Your task to perform on an android device: check google app version Image 0: 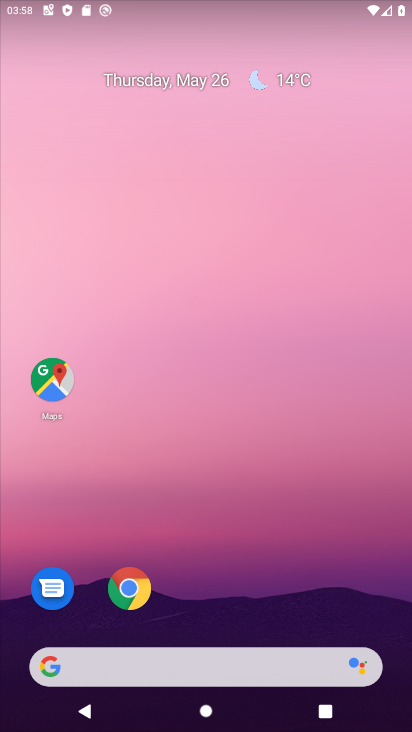
Step 0: drag from (250, 580) to (265, 82)
Your task to perform on an android device: check google app version Image 1: 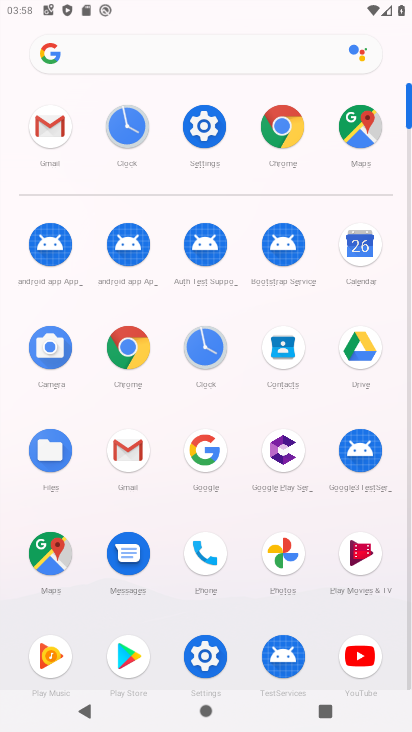
Step 1: click (209, 129)
Your task to perform on an android device: check google app version Image 2: 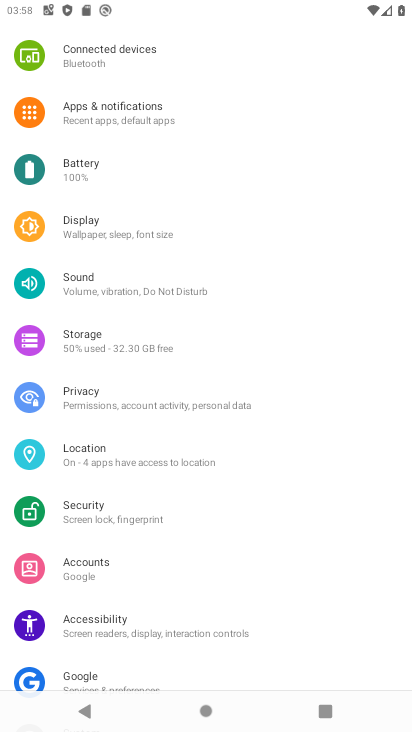
Step 2: press home button
Your task to perform on an android device: check google app version Image 3: 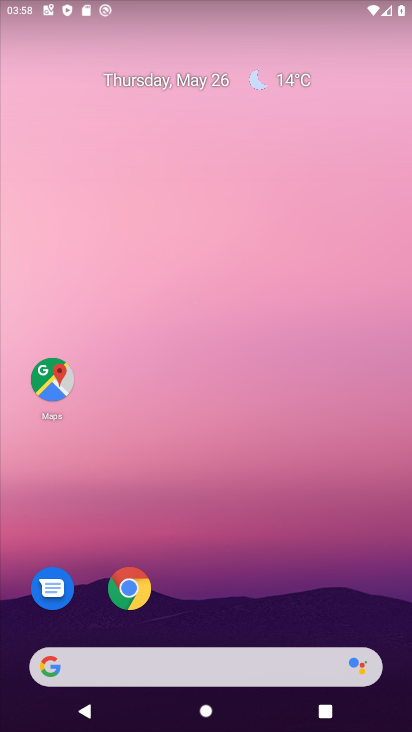
Step 3: drag from (230, 613) to (273, 167)
Your task to perform on an android device: check google app version Image 4: 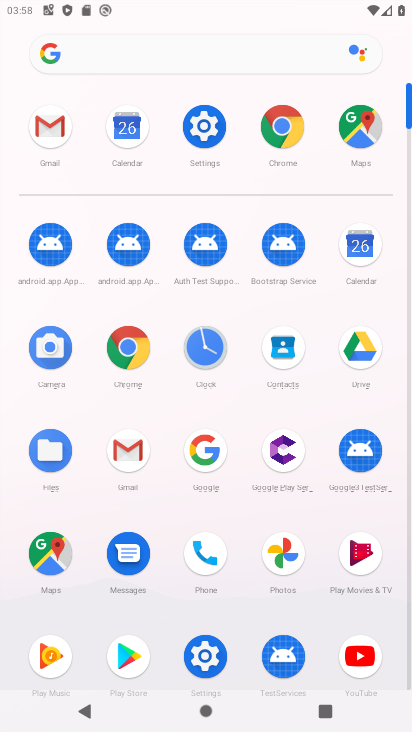
Step 4: click (284, 133)
Your task to perform on an android device: check google app version Image 5: 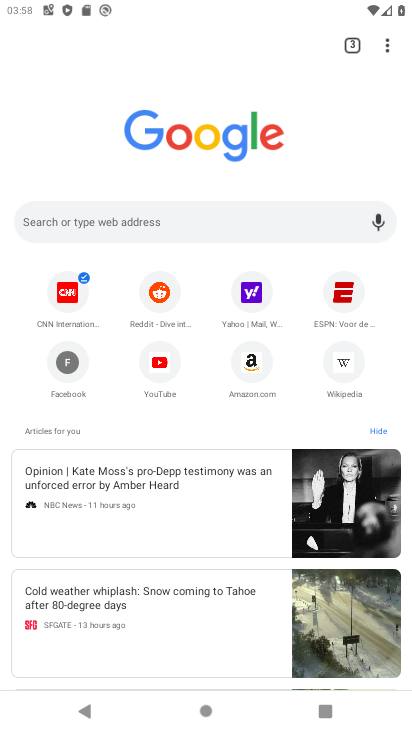
Step 5: click (397, 36)
Your task to perform on an android device: check google app version Image 6: 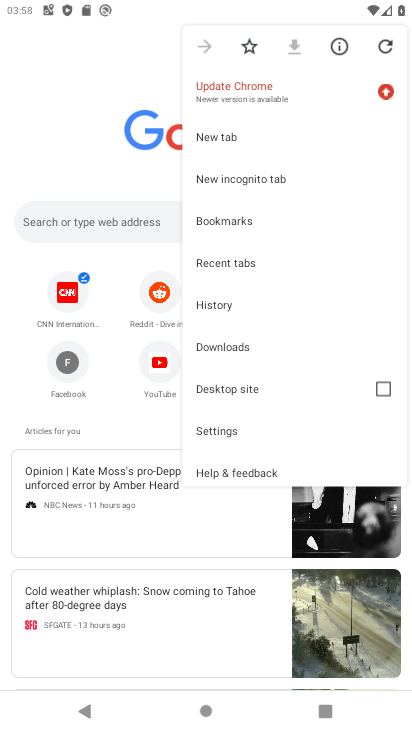
Step 6: drag from (260, 469) to (278, 276)
Your task to perform on an android device: check google app version Image 7: 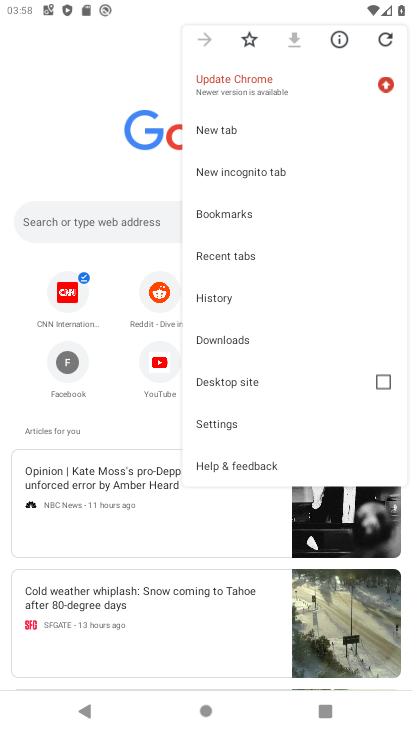
Step 7: click (238, 464)
Your task to perform on an android device: check google app version Image 8: 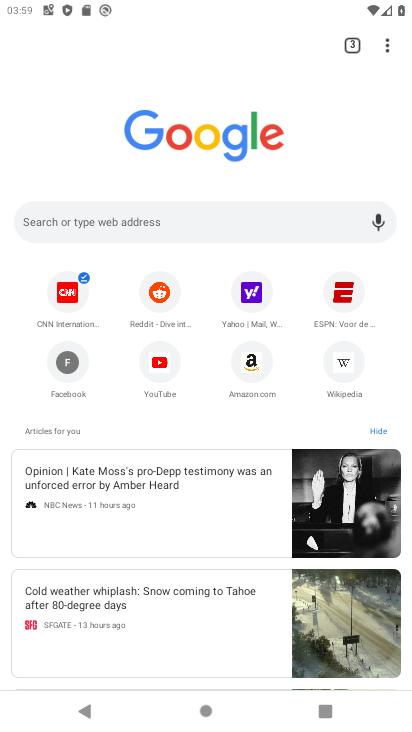
Step 8: task complete